Your task to perform on an android device: turn on javascript in the chrome app Image 0: 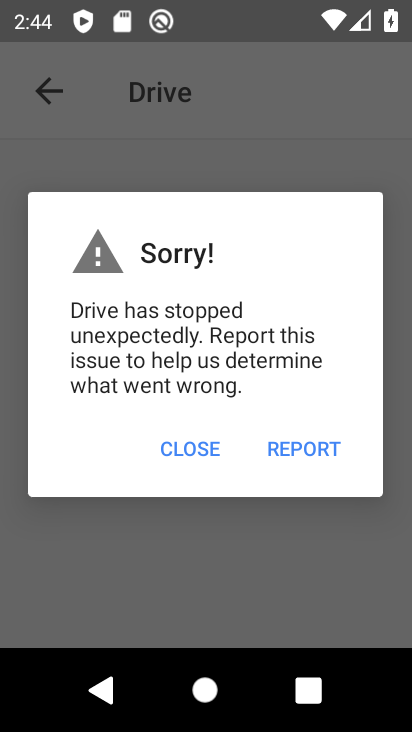
Step 0: press home button
Your task to perform on an android device: turn on javascript in the chrome app Image 1: 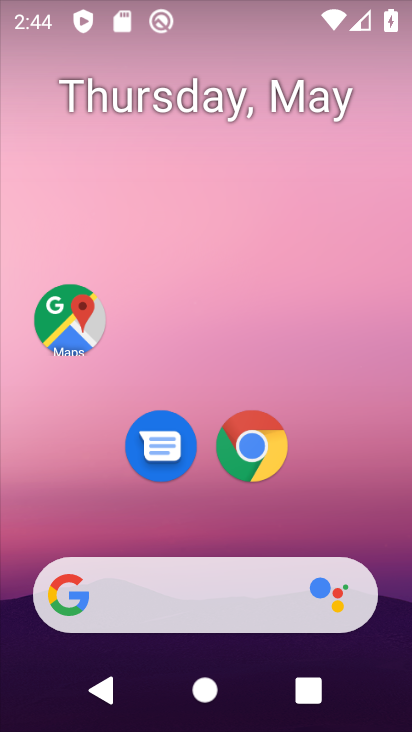
Step 1: click (254, 462)
Your task to perform on an android device: turn on javascript in the chrome app Image 2: 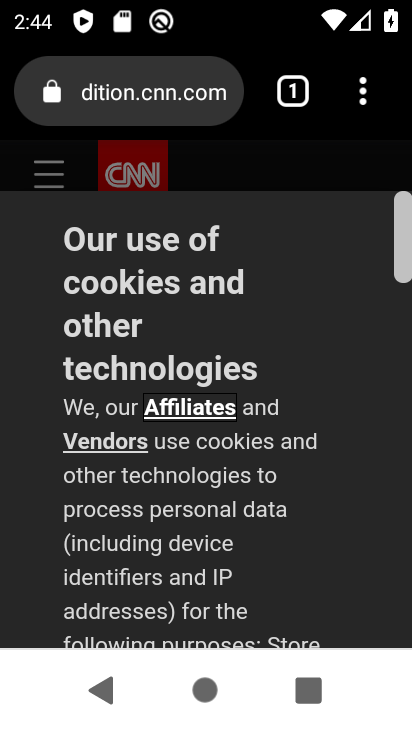
Step 2: click (365, 93)
Your task to perform on an android device: turn on javascript in the chrome app Image 3: 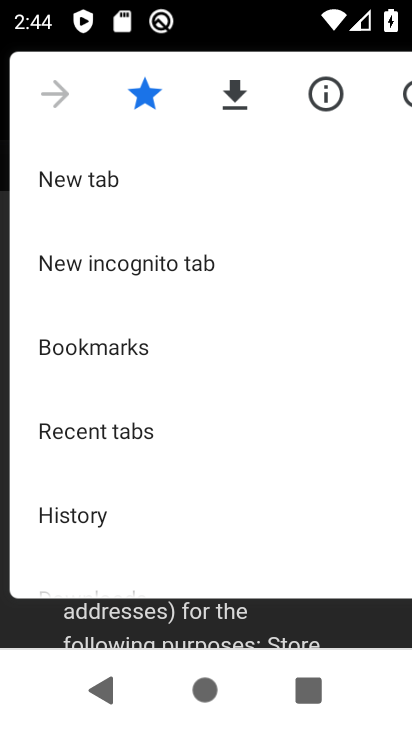
Step 3: drag from (210, 501) to (227, 147)
Your task to perform on an android device: turn on javascript in the chrome app Image 4: 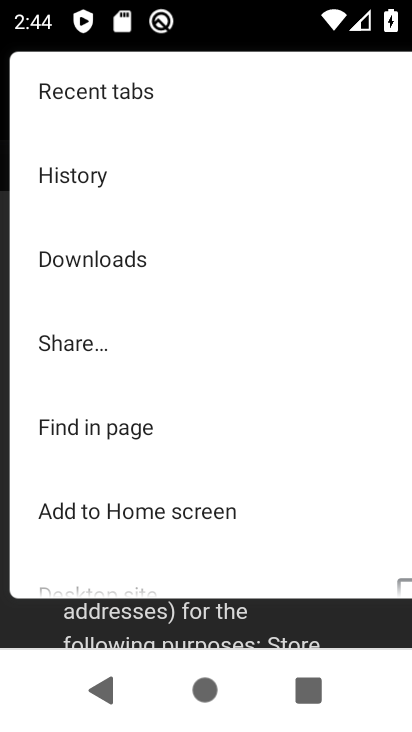
Step 4: drag from (221, 487) to (238, 141)
Your task to perform on an android device: turn on javascript in the chrome app Image 5: 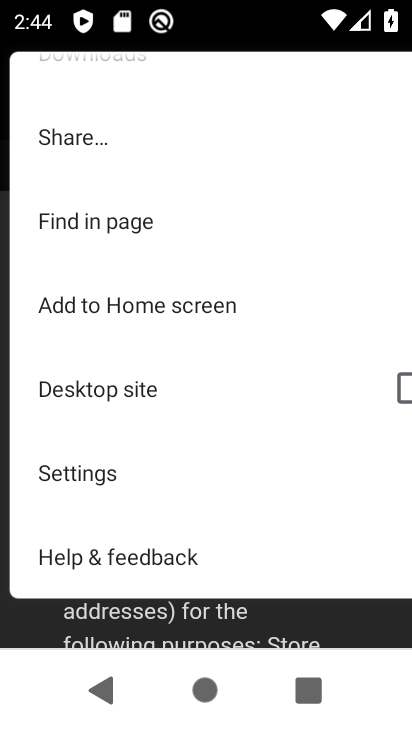
Step 5: click (78, 478)
Your task to perform on an android device: turn on javascript in the chrome app Image 6: 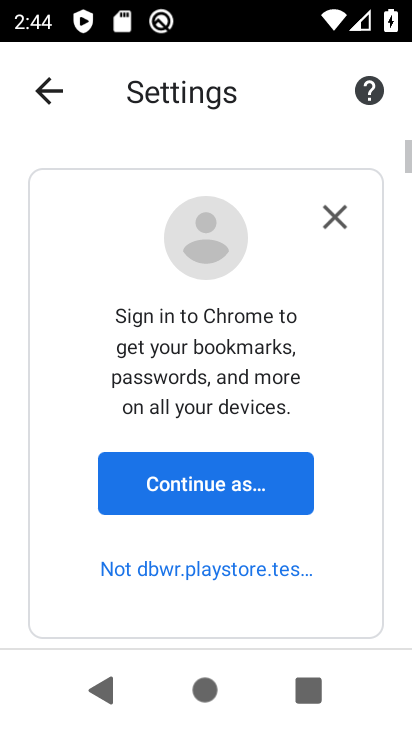
Step 6: drag from (224, 575) to (214, 157)
Your task to perform on an android device: turn on javascript in the chrome app Image 7: 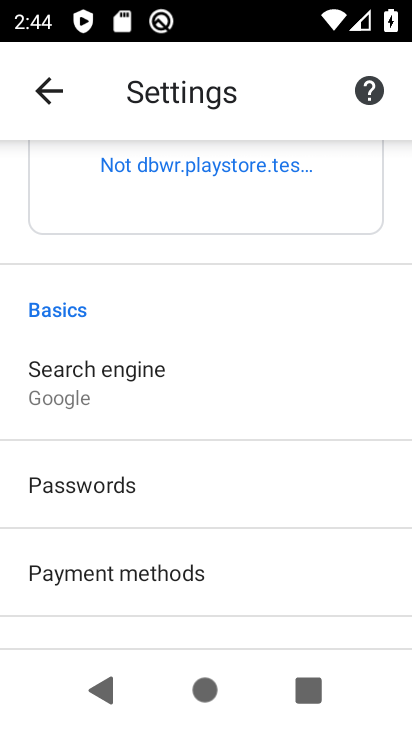
Step 7: drag from (222, 509) to (203, 136)
Your task to perform on an android device: turn on javascript in the chrome app Image 8: 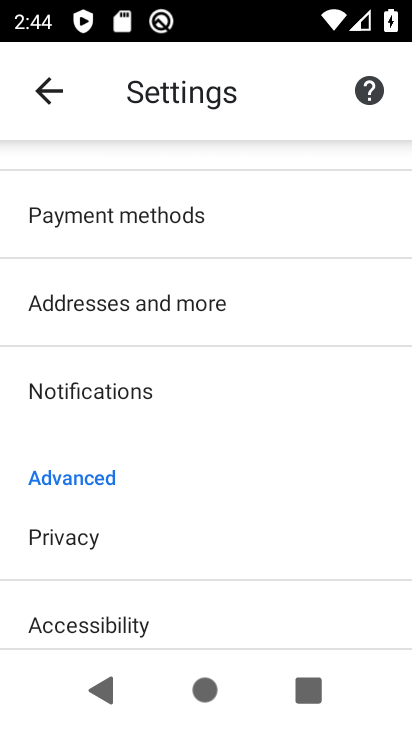
Step 8: drag from (196, 487) to (183, 178)
Your task to perform on an android device: turn on javascript in the chrome app Image 9: 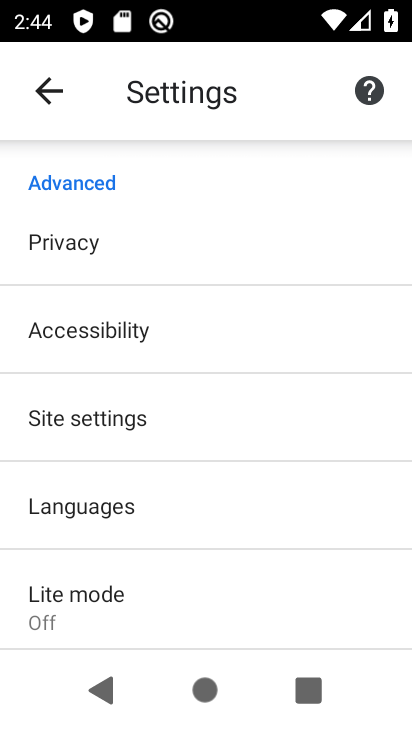
Step 9: click (111, 423)
Your task to perform on an android device: turn on javascript in the chrome app Image 10: 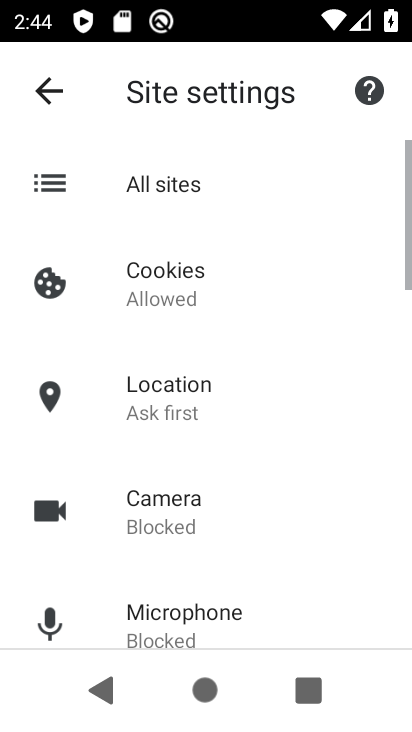
Step 10: drag from (243, 550) to (253, 188)
Your task to perform on an android device: turn on javascript in the chrome app Image 11: 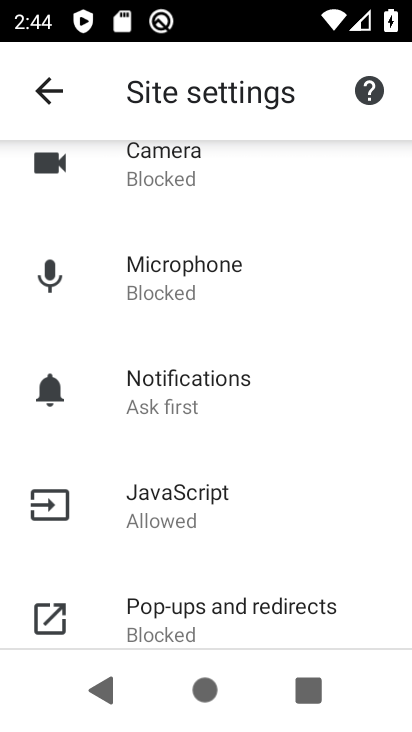
Step 11: click (179, 506)
Your task to perform on an android device: turn on javascript in the chrome app Image 12: 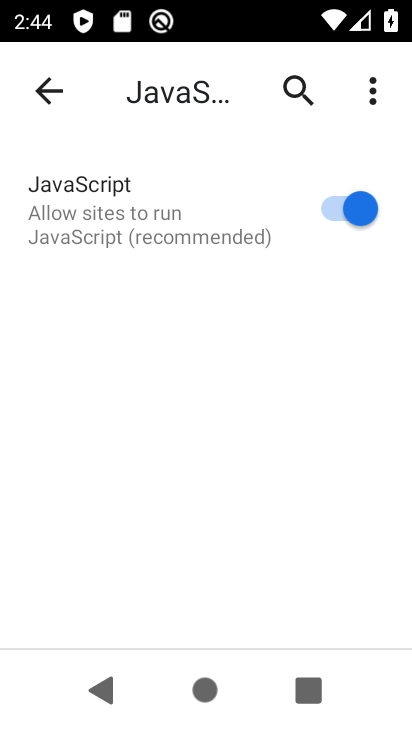
Step 12: task complete